Your task to perform on an android device: Go to Amazon Image 0: 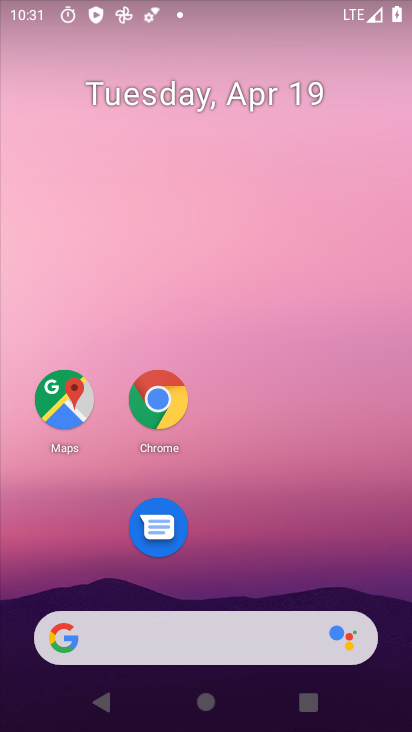
Step 0: drag from (246, 648) to (300, 0)
Your task to perform on an android device: Go to Amazon Image 1: 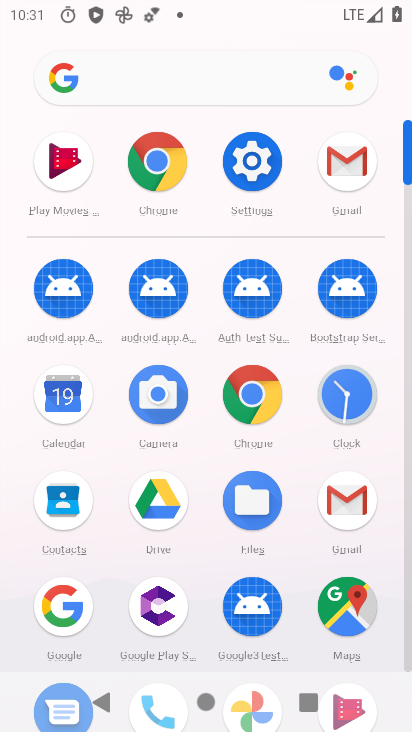
Step 1: click (170, 163)
Your task to perform on an android device: Go to Amazon Image 2: 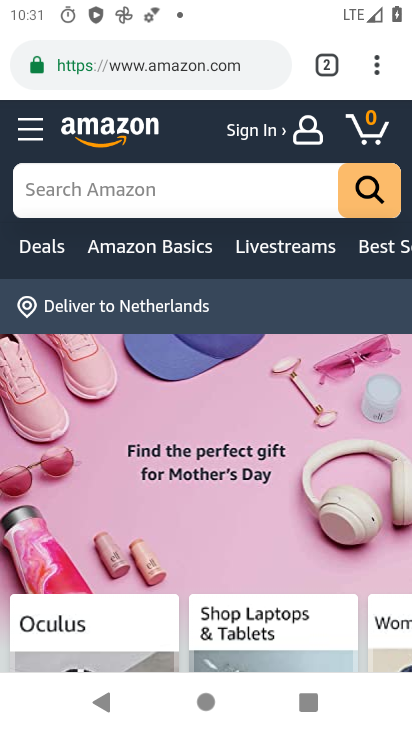
Step 2: click (200, 75)
Your task to perform on an android device: Go to Amazon Image 3: 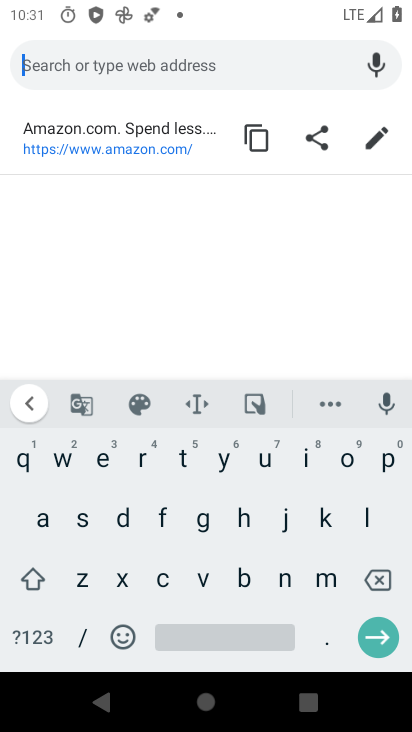
Step 3: click (142, 127)
Your task to perform on an android device: Go to Amazon Image 4: 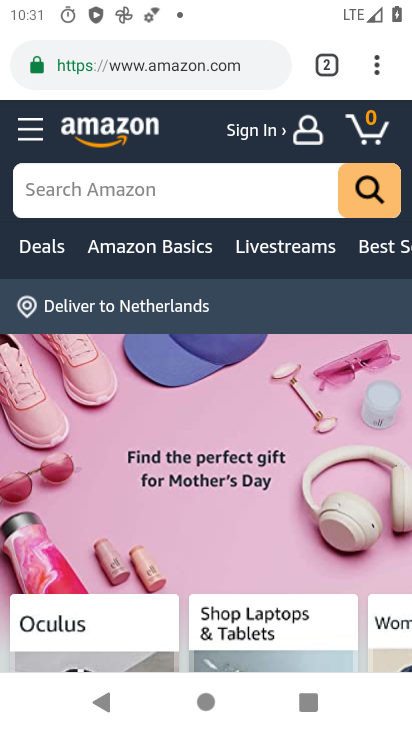
Step 4: task complete